Your task to perform on an android device: manage bookmarks in the chrome app Image 0: 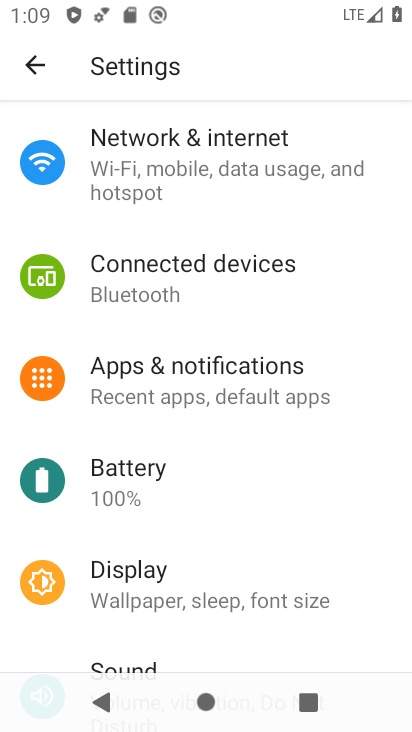
Step 0: press home button
Your task to perform on an android device: manage bookmarks in the chrome app Image 1: 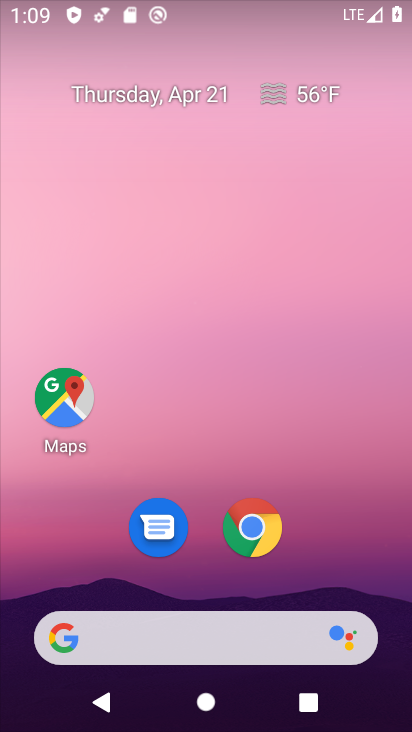
Step 1: drag from (203, 586) to (271, 12)
Your task to perform on an android device: manage bookmarks in the chrome app Image 2: 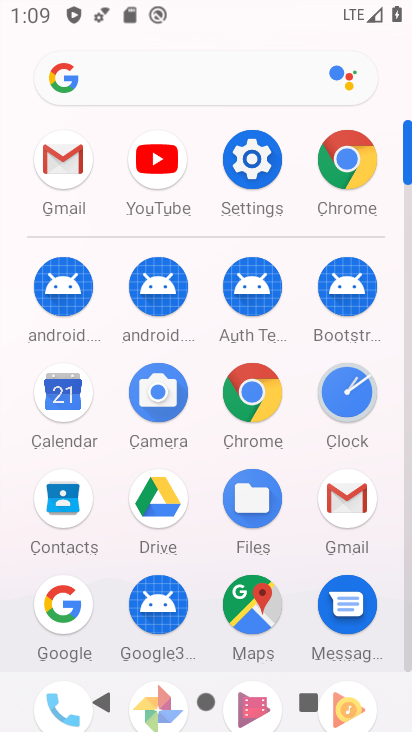
Step 2: click (355, 163)
Your task to perform on an android device: manage bookmarks in the chrome app Image 3: 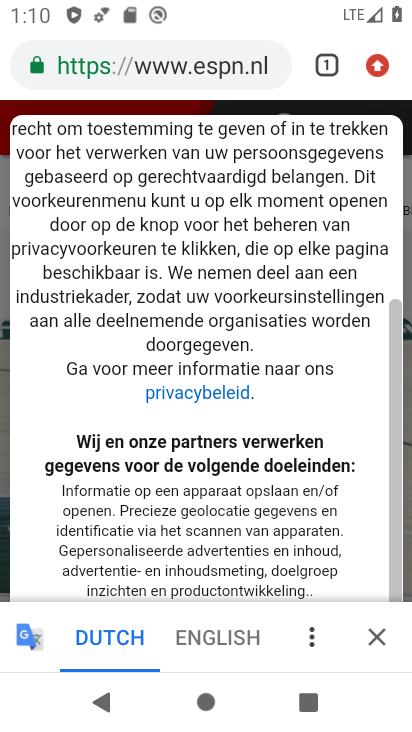
Step 3: click (374, 68)
Your task to perform on an android device: manage bookmarks in the chrome app Image 4: 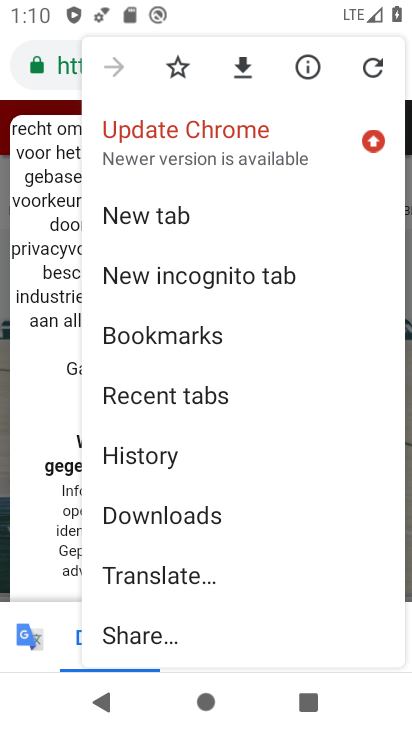
Step 4: click (203, 342)
Your task to perform on an android device: manage bookmarks in the chrome app Image 5: 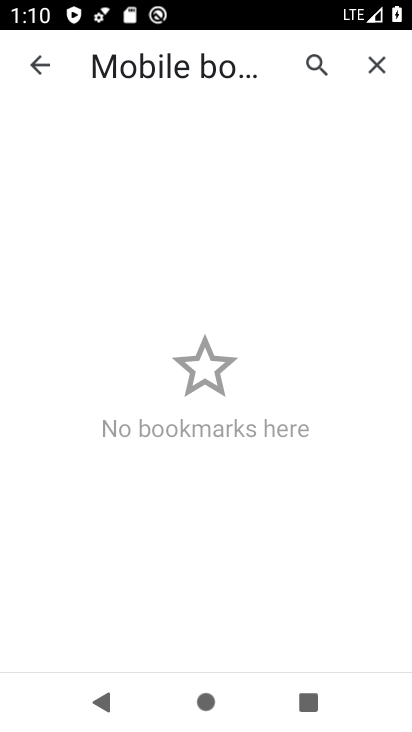
Step 5: task complete